Your task to perform on an android device: Google the capital of Bolivia Image 0: 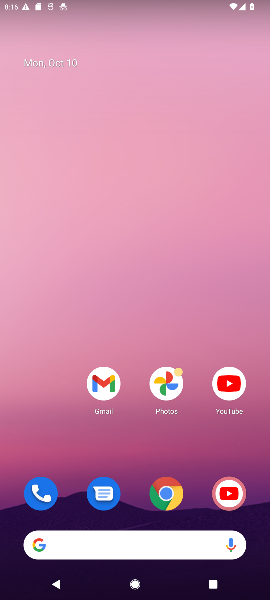
Step 0: click (156, 536)
Your task to perform on an android device: Google the capital of Bolivia Image 1: 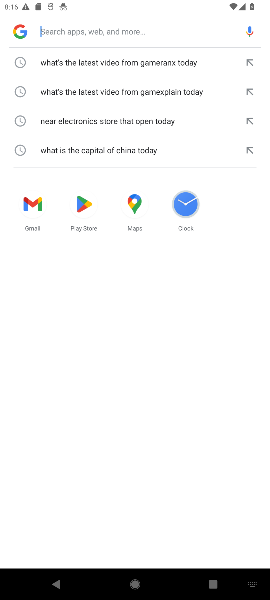
Step 1: type " the capital of Bolivia"
Your task to perform on an android device: Google the capital of Bolivia Image 2: 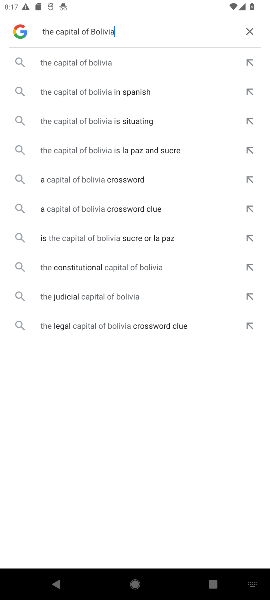
Step 2: click (83, 71)
Your task to perform on an android device: Google the capital of Bolivia Image 3: 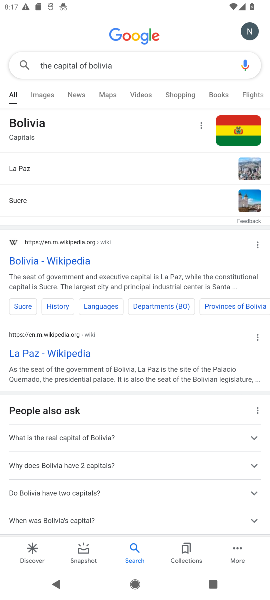
Step 3: task complete